Your task to perform on an android device: What's the weather today? Image 0: 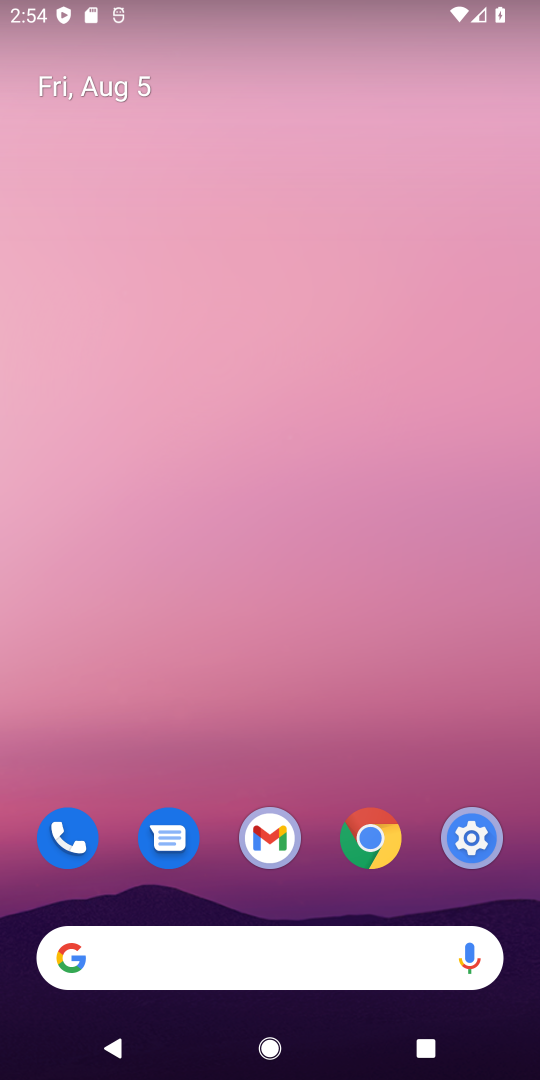
Step 0: click (379, 837)
Your task to perform on an android device: What's the weather today? Image 1: 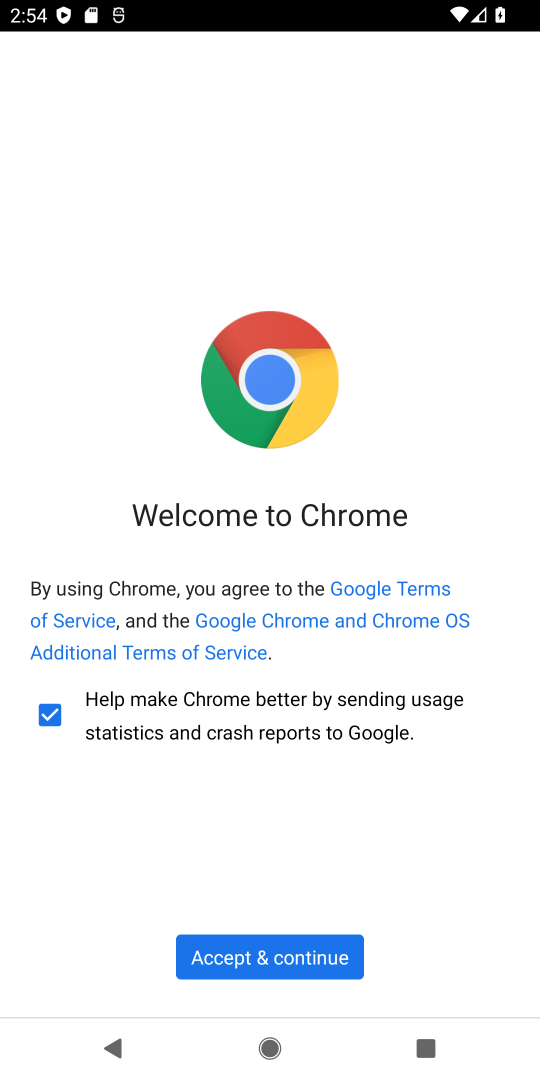
Step 1: click (326, 971)
Your task to perform on an android device: What's the weather today? Image 2: 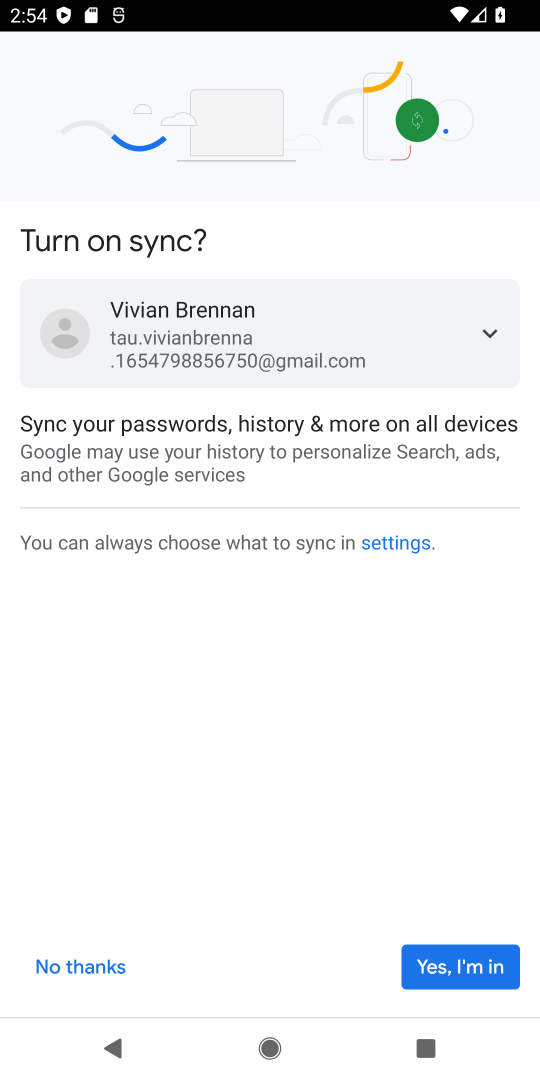
Step 2: click (448, 959)
Your task to perform on an android device: What's the weather today? Image 3: 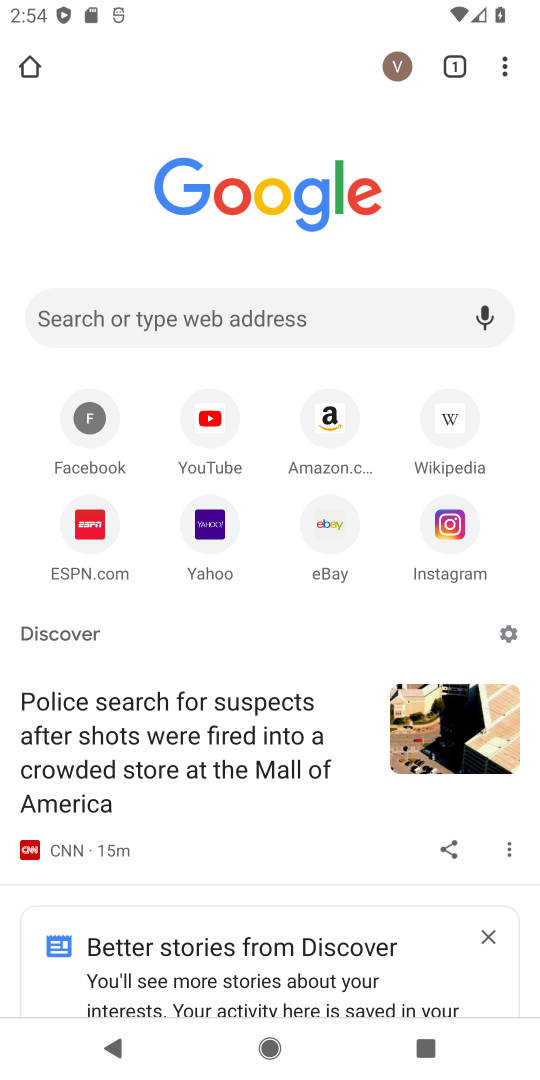
Step 3: click (187, 338)
Your task to perform on an android device: What's the weather today? Image 4: 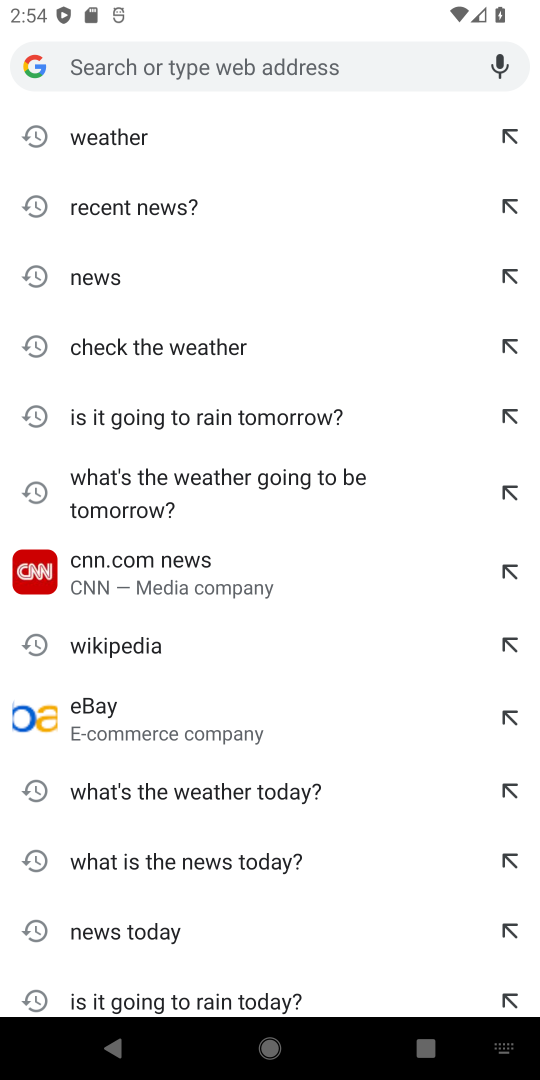
Step 4: click (257, 799)
Your task to perform on an android device: What's the weather today? Image 5: 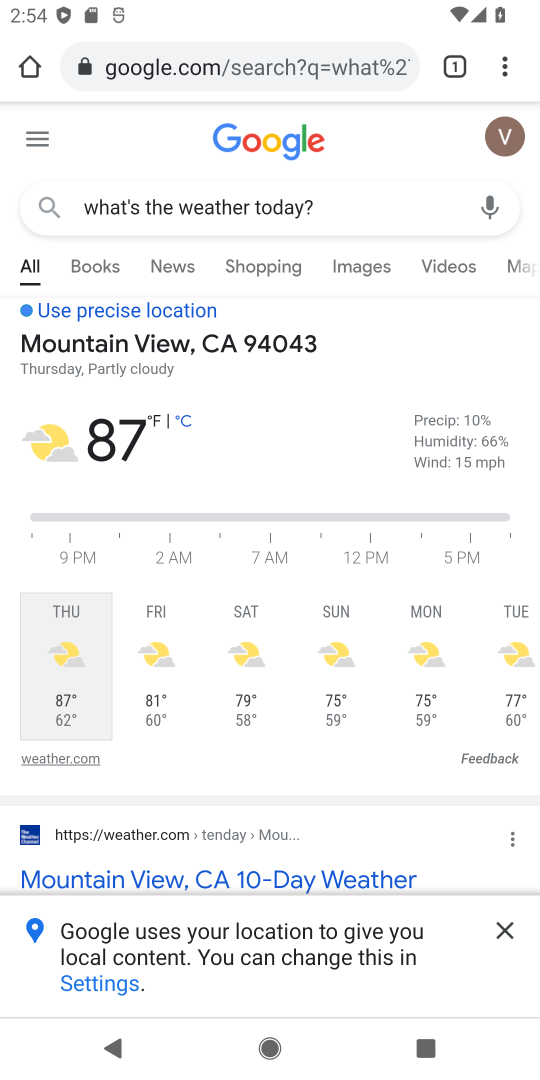
Step 5: task complete